Your task to perform on an android device: Open settings Image 0: 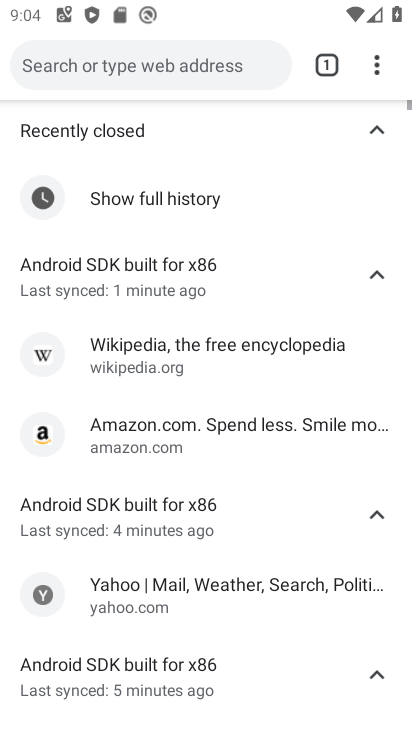
Step 0: drag from (187, 647) to (183, 92)
Your task to perform on an android device: Open settings Image 1: 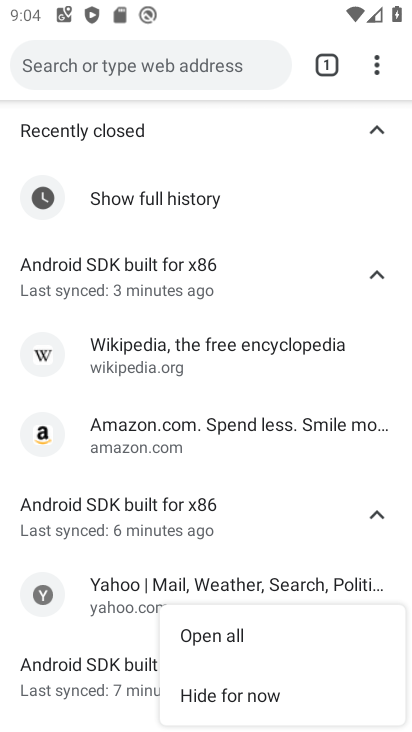
Step 1: press home button
Your task to perform on an android device: Open settings Image 2: 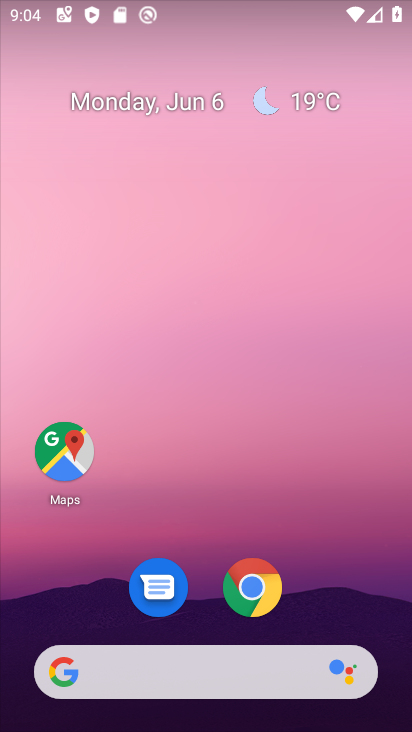
Step 2: drag from (192, 664) to (231, 239)
Your task to perform on an android device: Open settings Image 3: 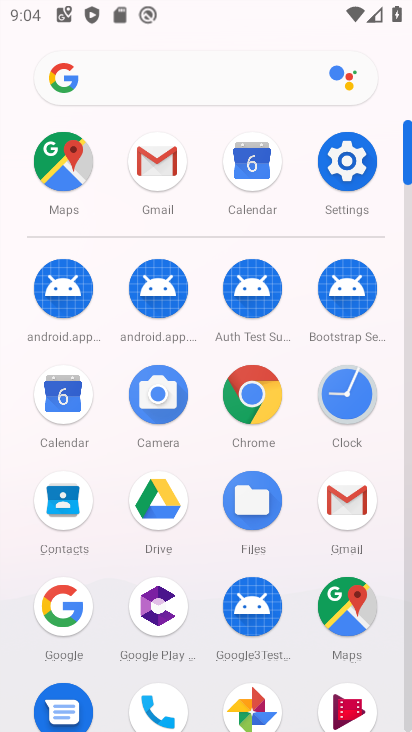
Step 3: click (342, 155)
Your task to perform on an android device: Open settings Image 4: 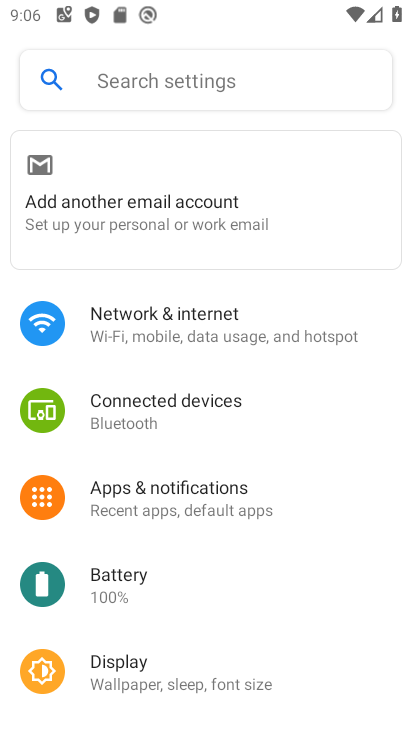
Step 4: task complete